Your task to perform on an android device: Open Google Maps and go to "Timeline" Image 0: 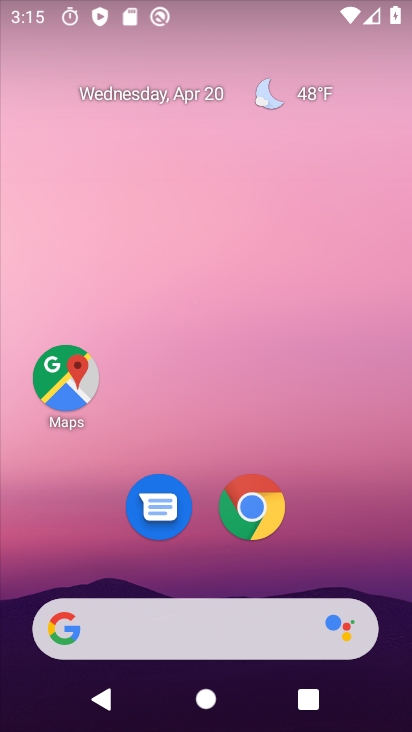
Step 0: drag from (266, 647) to (242, 140)
Your task to perform on an android device: Open Google Maps and go to "Timeline" Image 1: 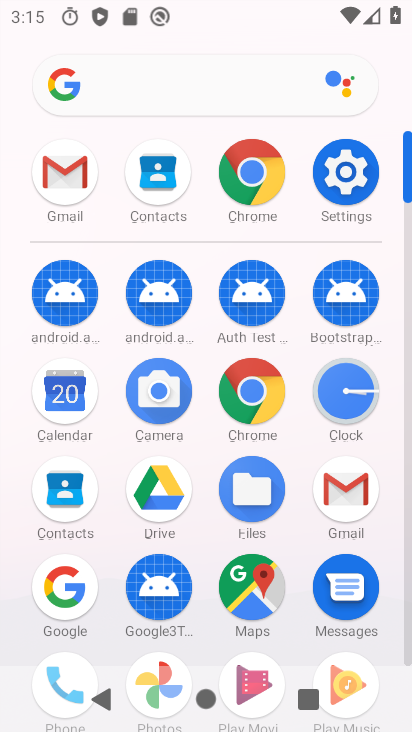
Step 1: click (253, 609)
Your task to perform on an android device: Open Google Maps and go to "Timeline" Image 2: 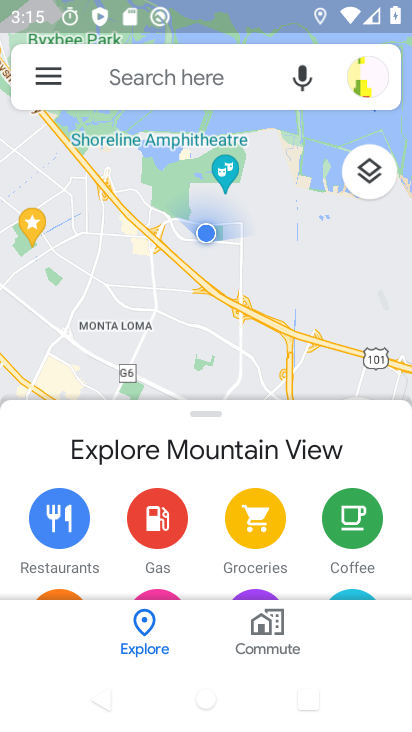
Step 2: click (48, 71)
Your task to perform on an android device: Open Google Maps and go to "Timeline" Image 3: 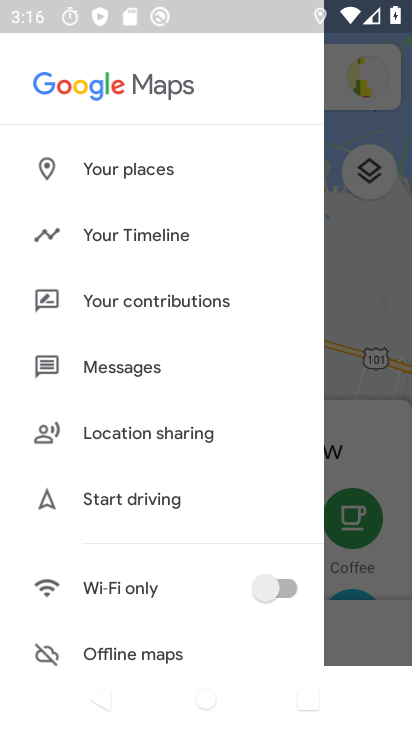
Step 3: click (151, 239)
Your task to perform on an android device: Open Google Maps and go to "Timeline" Image 4: 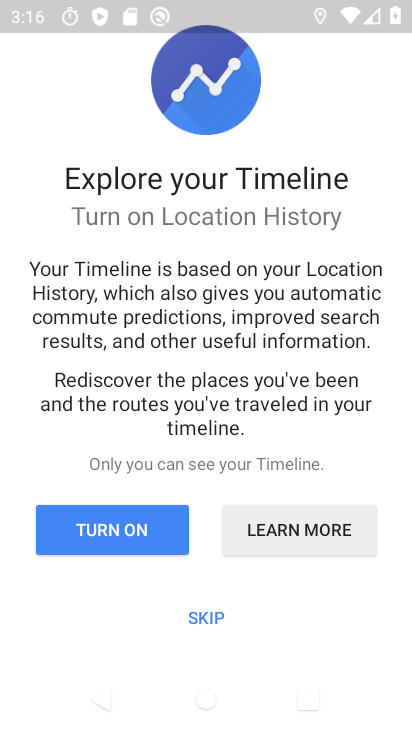
Step 4: click (209, 600)
Your task to perform on an android device: Open Google Maps and go to "Timeline" Image 5: 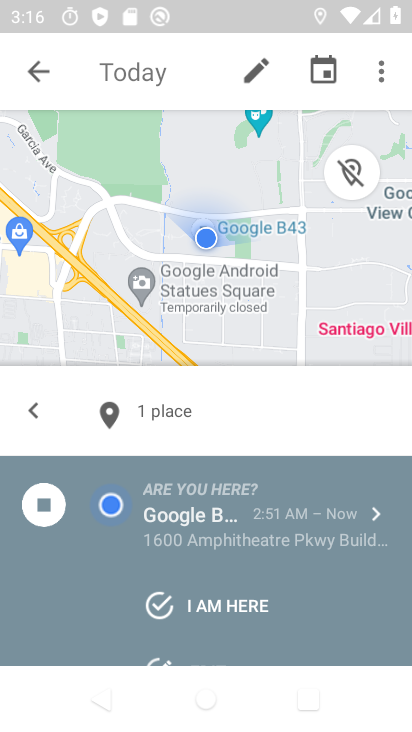
Step 5: task complete